Your task to perform on an android device: turn notification dots on Image 0: 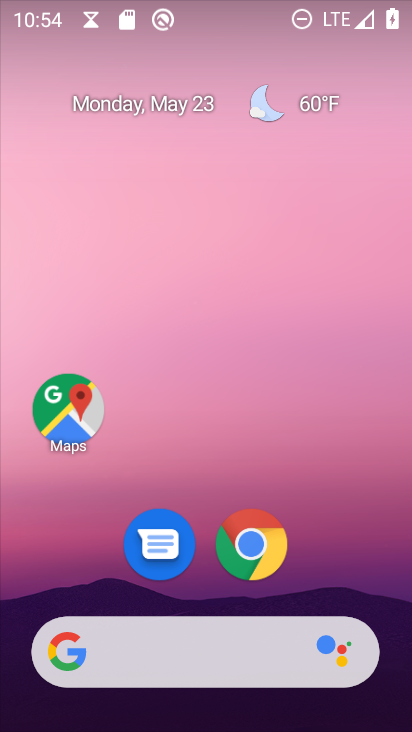
Step 0: drag from (313, 545) to (245, 321)
Your task to perform on an android device: turn notification dots on Image 1: 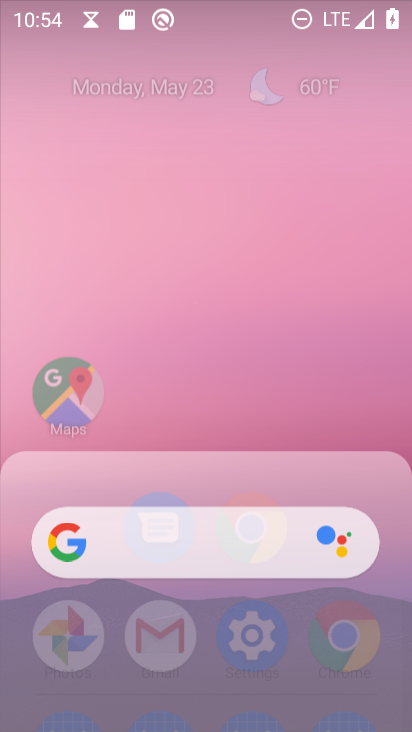
Step 1: click (86, 110)
Your task to perform on an android device: turn notification dots on Image 2: 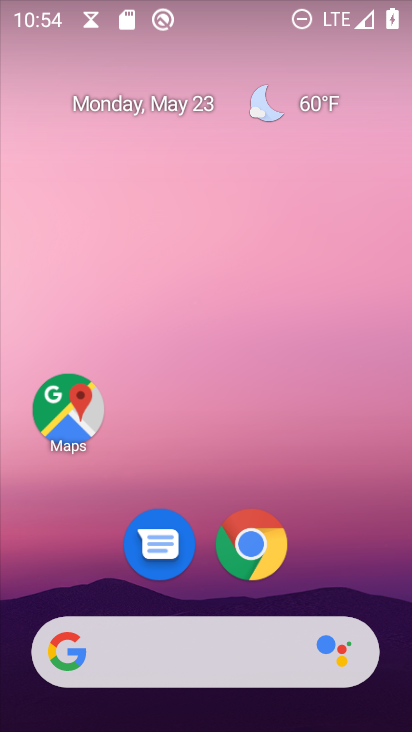
Step 2: drag from (336, 552) to (27, 66)
Your task to perform on an android device: turn notification dots on Image 3: 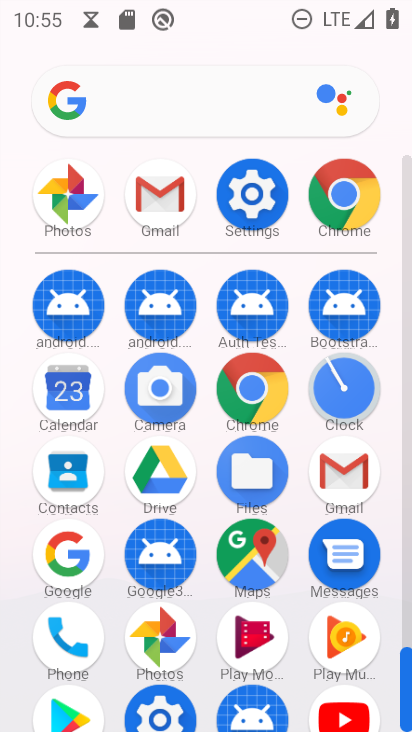
Step 3: click (245, 210)
Your task to perform on an android device: turn notification dots on Image 4: 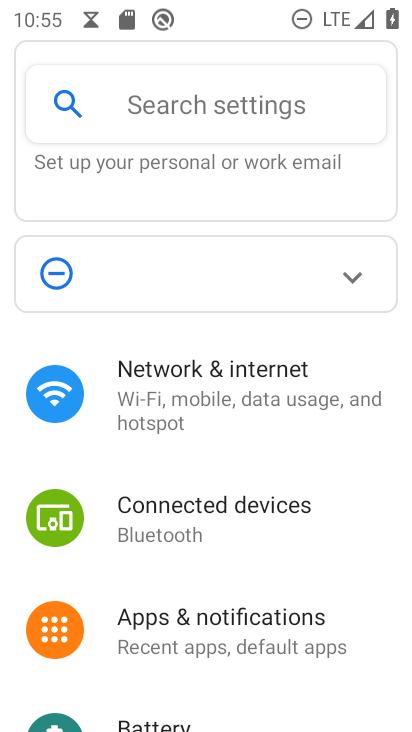
Step 4: drag from (231, 574) to (229, 339)
Your task to perform on an android device: turn notification dots on Image 5: 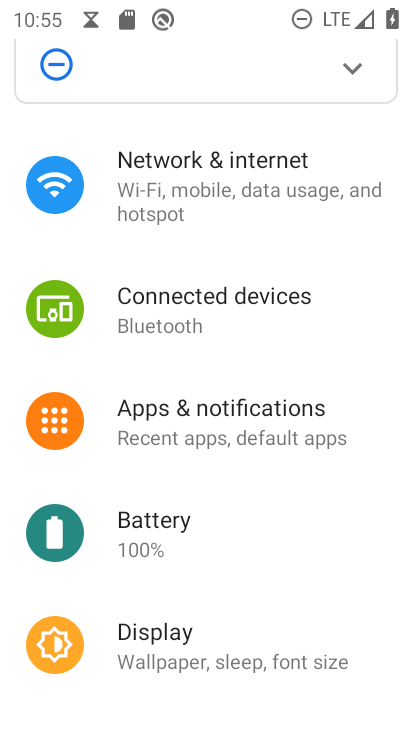
Step 5: click (199, 413)
Your task to perform on an android device: turn notification dots on Image 6: 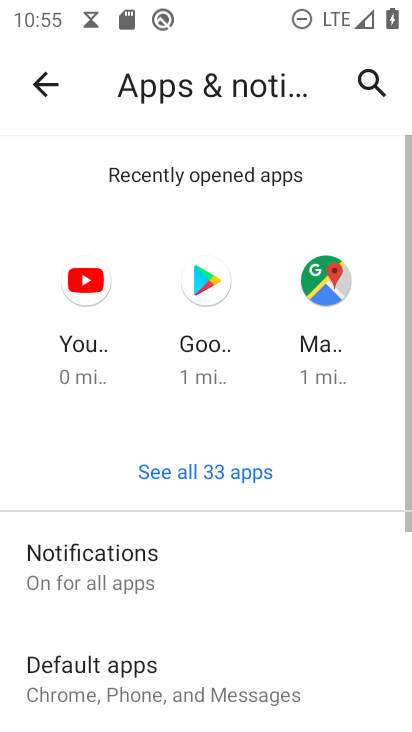
Step 6: click (219, 608)
Your task to perform on an android device: turn notification dots on Image 7: 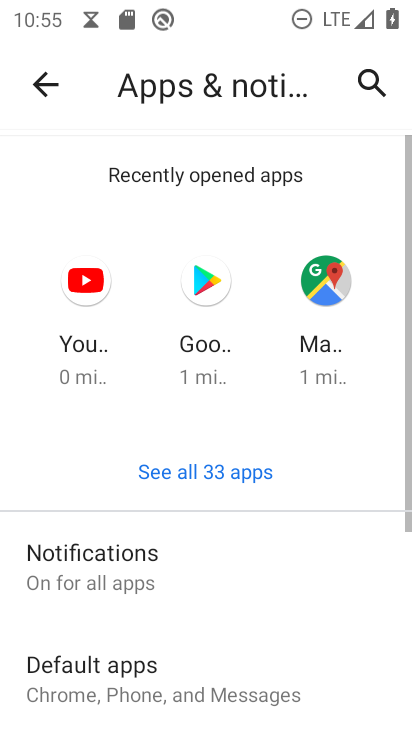
Step 7: drag from (212, 599) to (188, 498)
Your task to perform on an android device: turn notification dots on Image 8: 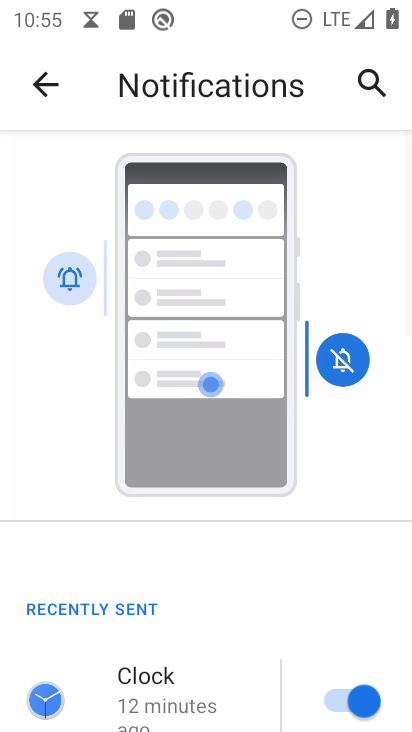
Step 8: drag from (165, 626) to (173, 238)
Your task to perform on an android device: turn notification dots on Image 9: 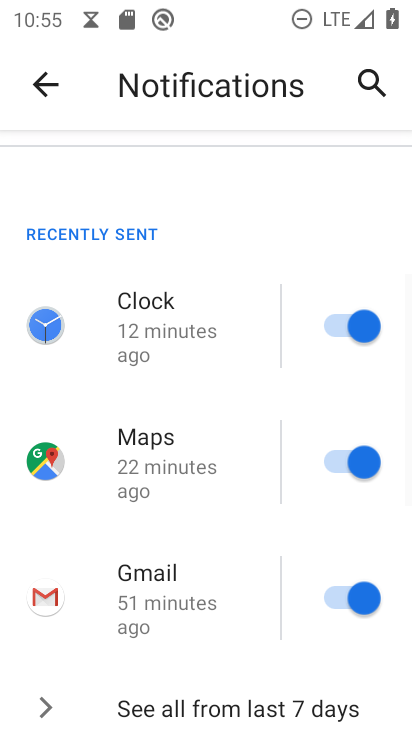
Step 9: drag from (203, 441) to (198, 235)
Your task to perform on an android device: turn notification dots on Image 10: 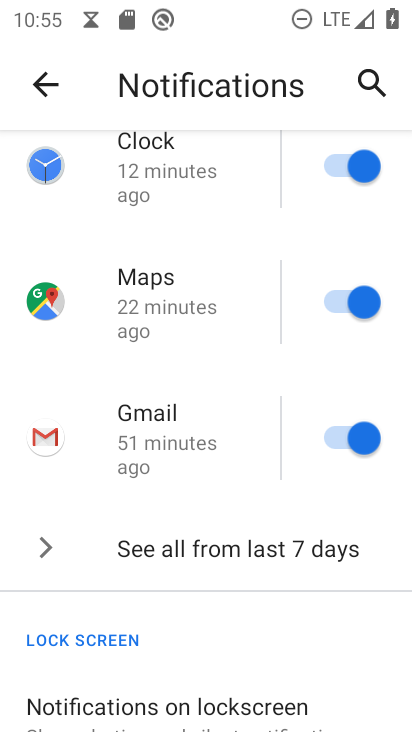
Step 10: drag from (160, 622) to (145, 182)
Your task to perform on an android device: turn notification dots on Image 11: 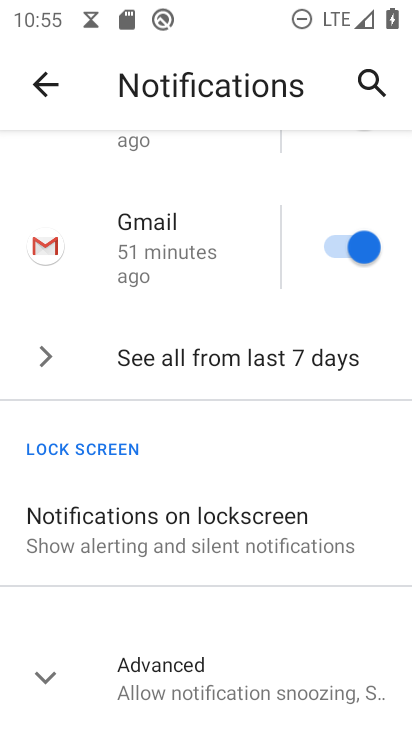
Step 11: click (175, 687)
Your task to perform on an android device: turn notification dots on Image 12: 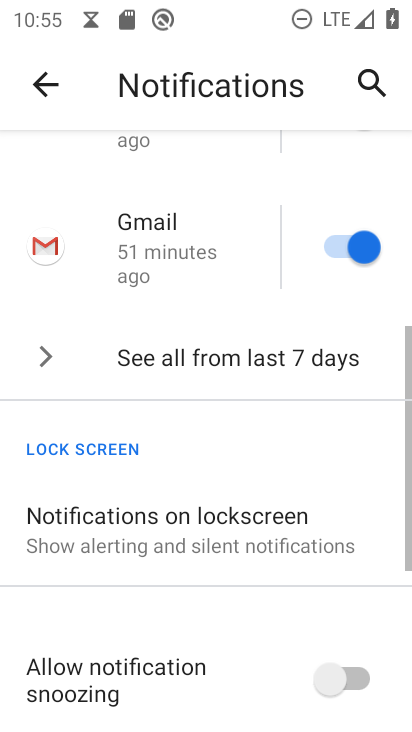
Step 12: task complete